Your task to perform on an android device: change alarm snooze length Image 0: 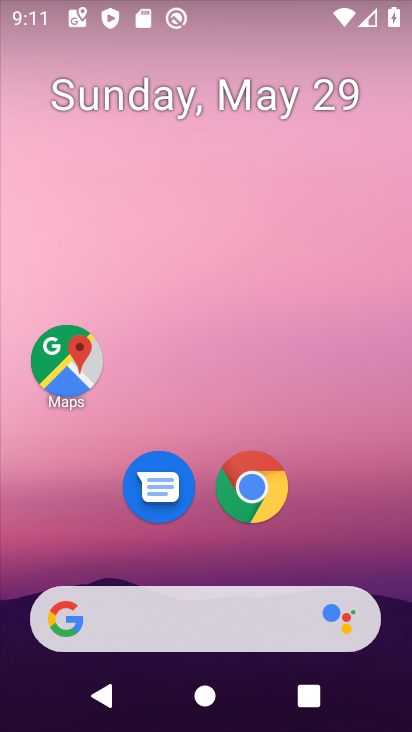
Step 0: drag from (160, 730) to (142, 36)
Your task to perform on an android device: change alarm snooze length Image 1: 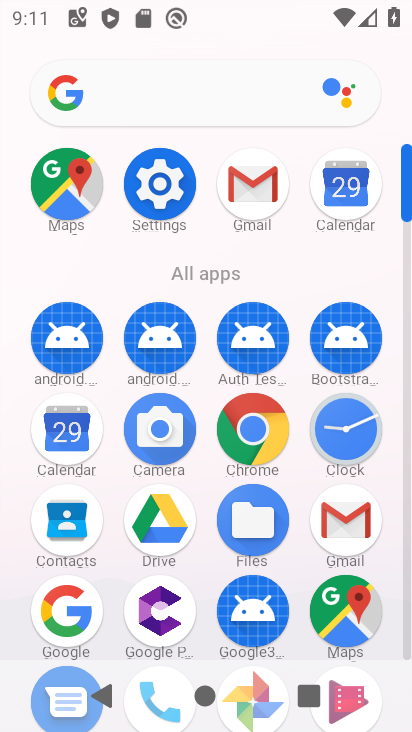
Step 1: click (357, 448)
Your task to perform on an android device: change alarm snooze length Image 2: 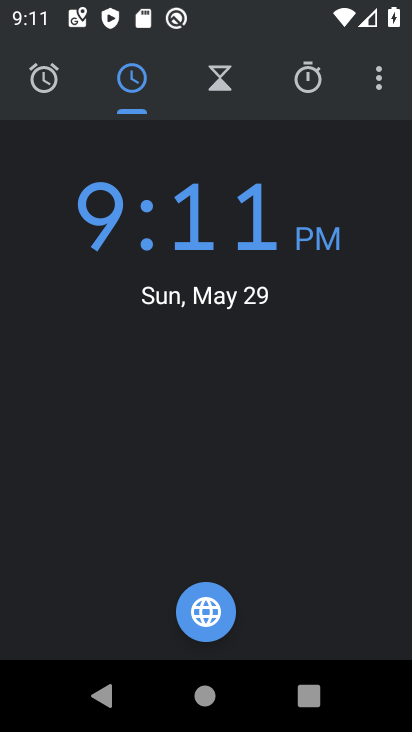
Step 2: click (377, 78)
Your task to perform on an android device: change alarm snooze length Image 3: 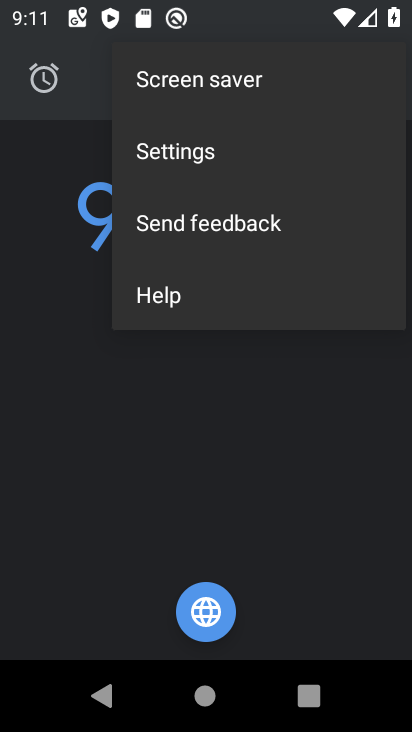
Step 3: click (181, 163)
Your task to perform on an android device: change alarm snooze length Image 4: 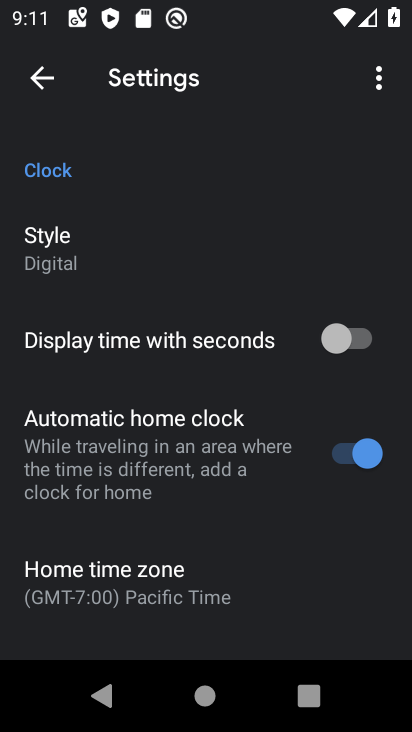
Step 4: drag from (242, 580) to (211, 230)
Your task to perform on an android device: change alarm snooze length Image 5: 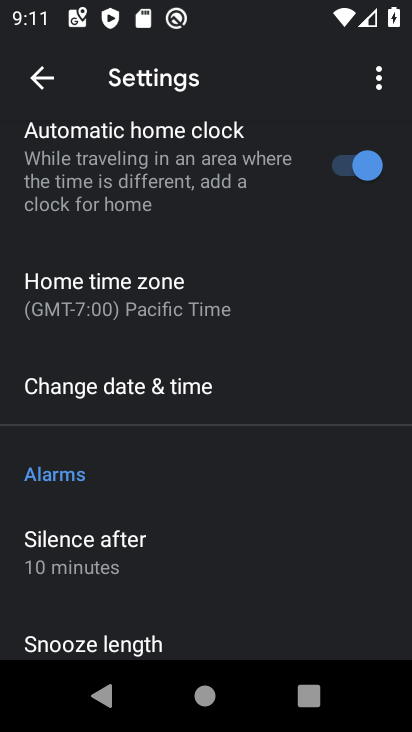
Step 5: click (148, 639)
Your task to perform on an android device: change alarm snooze length Image 6: 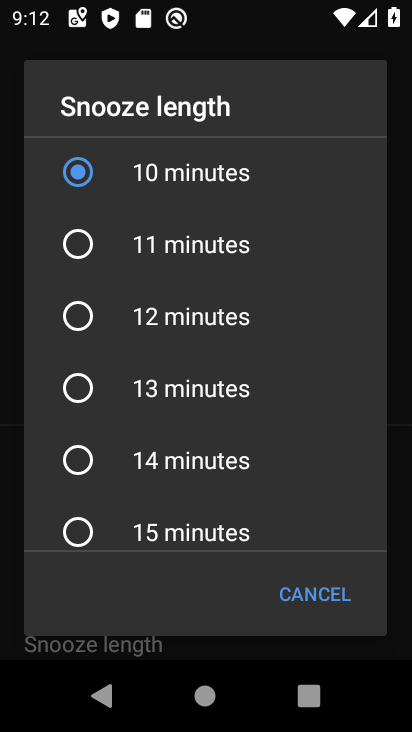
Step 6: click (176, 251)
Your task to perform on an android device: change alarm snooze length Image 7: 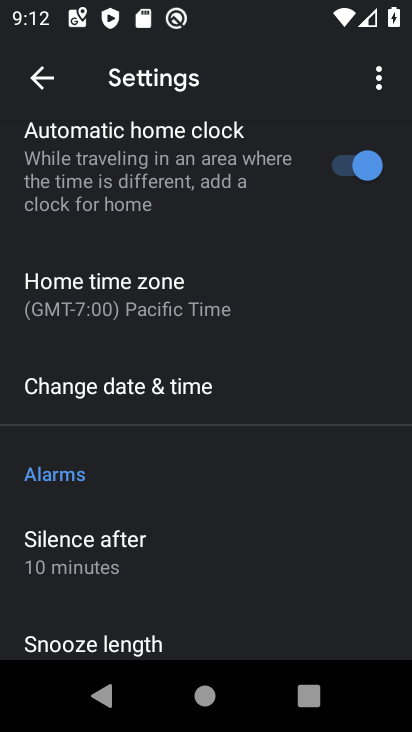
Step 7: task complete